Your task to perform on an android device: Open my contact list Image 0: 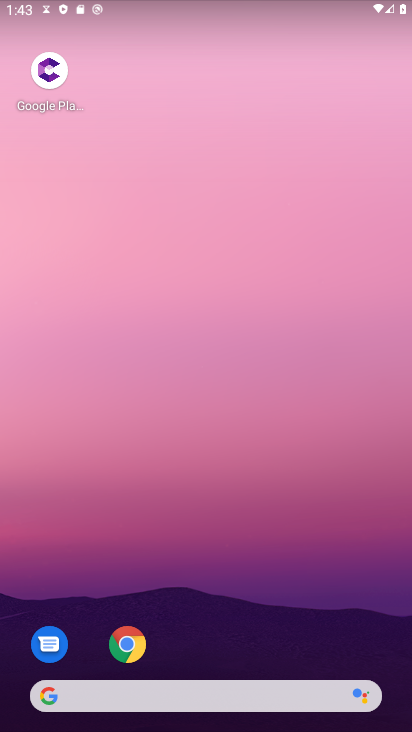
Step 0: drag from (258, 644) to (185, 358)
Your task to perform on an android device: Open my contact list Image 1: 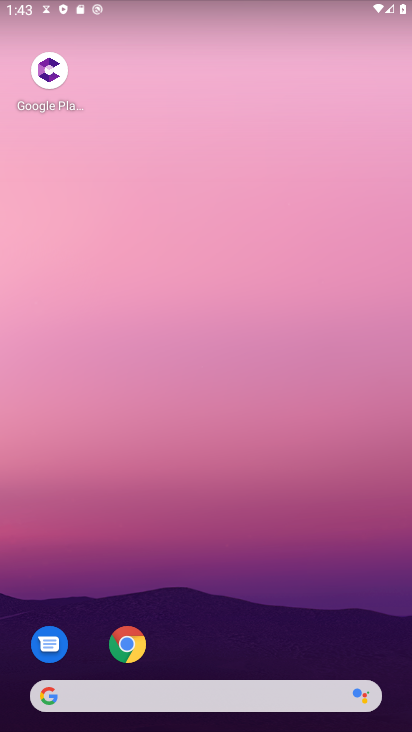
Step 1: drag from (272, 585) to (196, 257)
Your task to perform on an android device: Open my contact list Image 2: 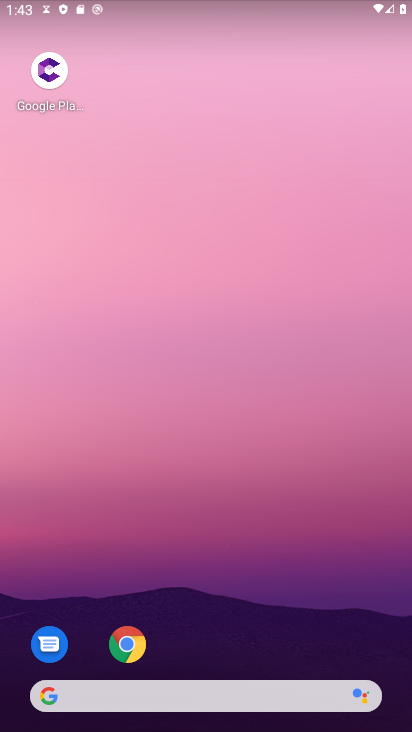
Step 2: drag from (190, 377) to (157, 67)
Your task to perform on an android device: Open my contact list Image 3: 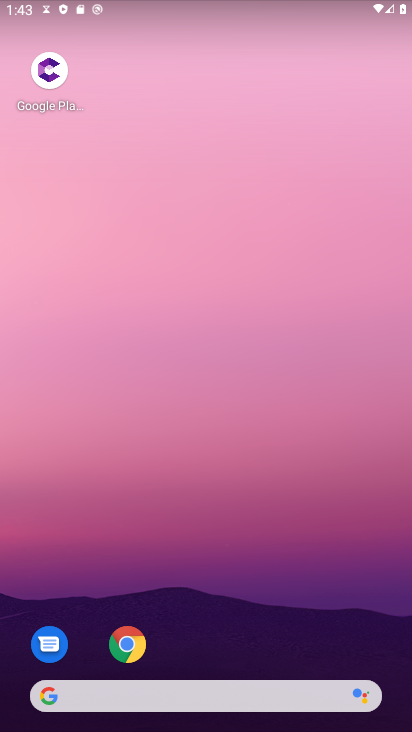
Step 3: drag from (256, 518) to (224, 192)
Your task to perform on an android device: Open my contact list Image 4: 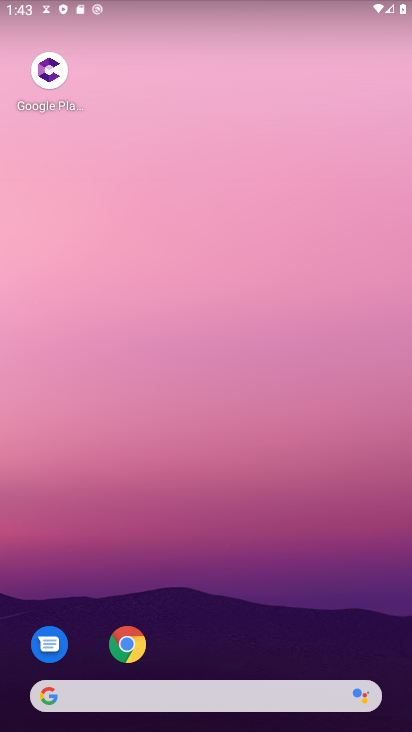
Step 4: drag from (227, 332) to (224, 30)
Your task to perform on an android device: Open my contact list Image 5: 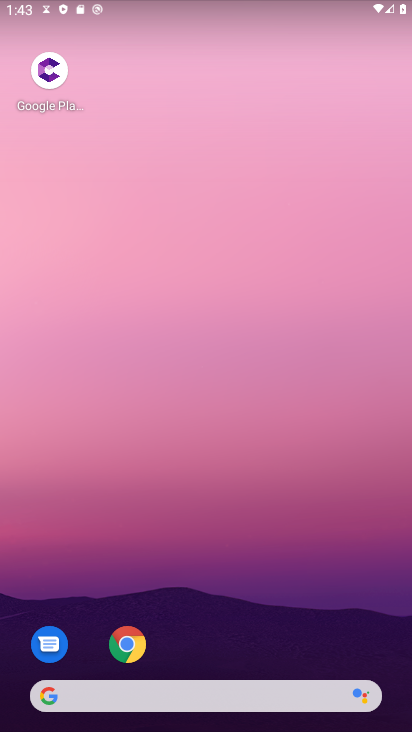
Step 5: drag from (209, 479) to (198, 210)
Your task to perform on an android device: Open my contact list Image 6: 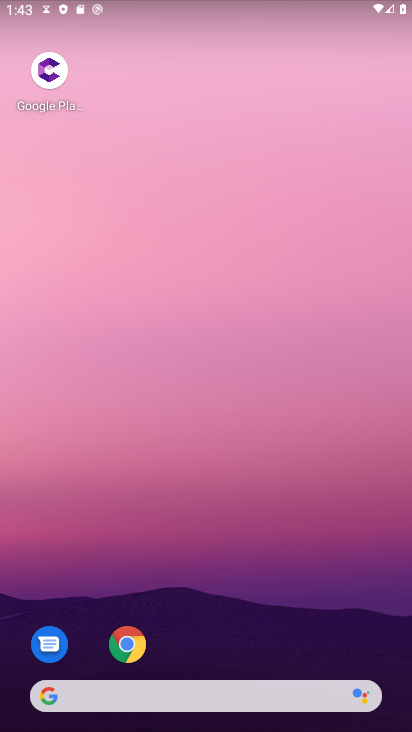
Step 6: drag from (226, 580) to (232, 135)
Your task to perform on an android device: Open my contact list Image 7: 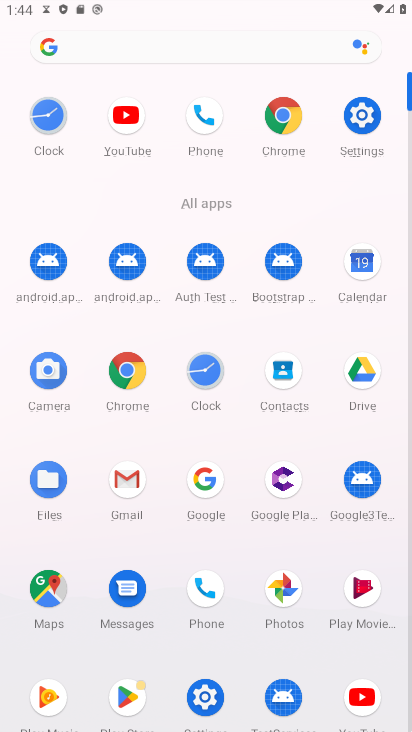
Step 7: click (281, 385)
Your task to perform on an android device: Open my contact list Image 8: 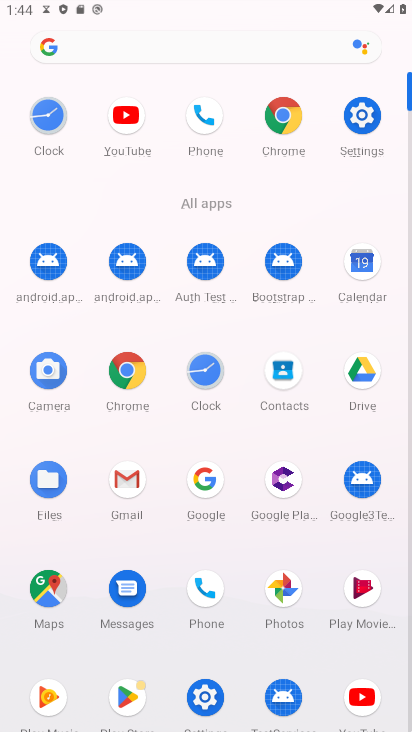
Step 8: click (281, 385)
Your task to perform on an android device: Open my contact list Image 9: 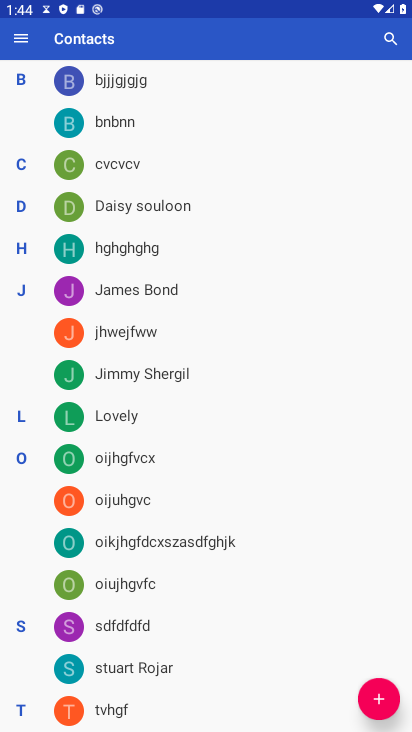
Step 9: task complete